Your task to perform on an android device: open wifi settings Image 0: 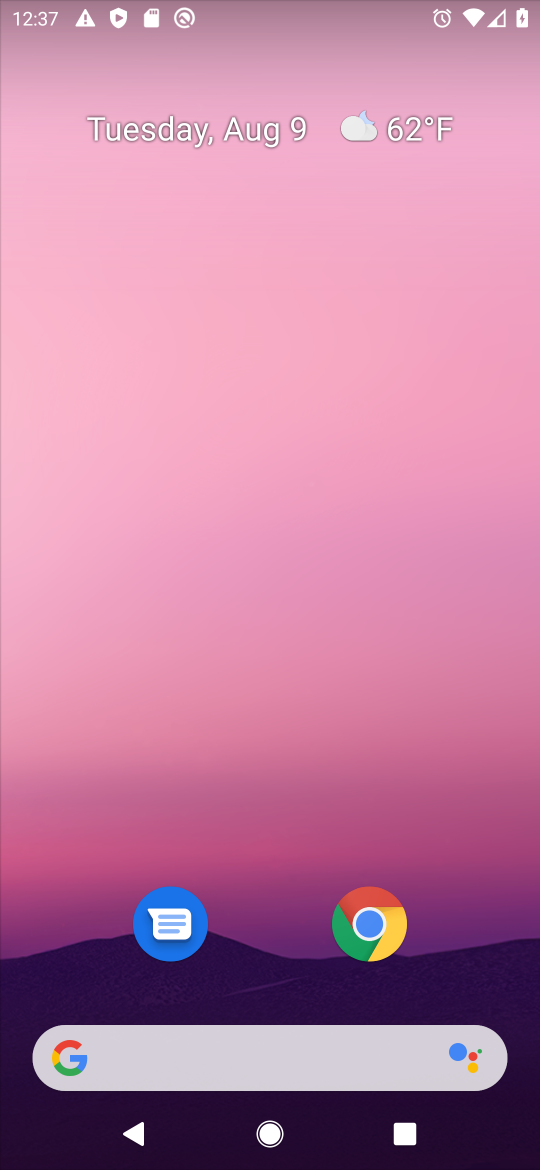
Step 0: drag from (297, 1023) to (270, 19)
Your task to perform on an android device: open wifi settings Image 1: 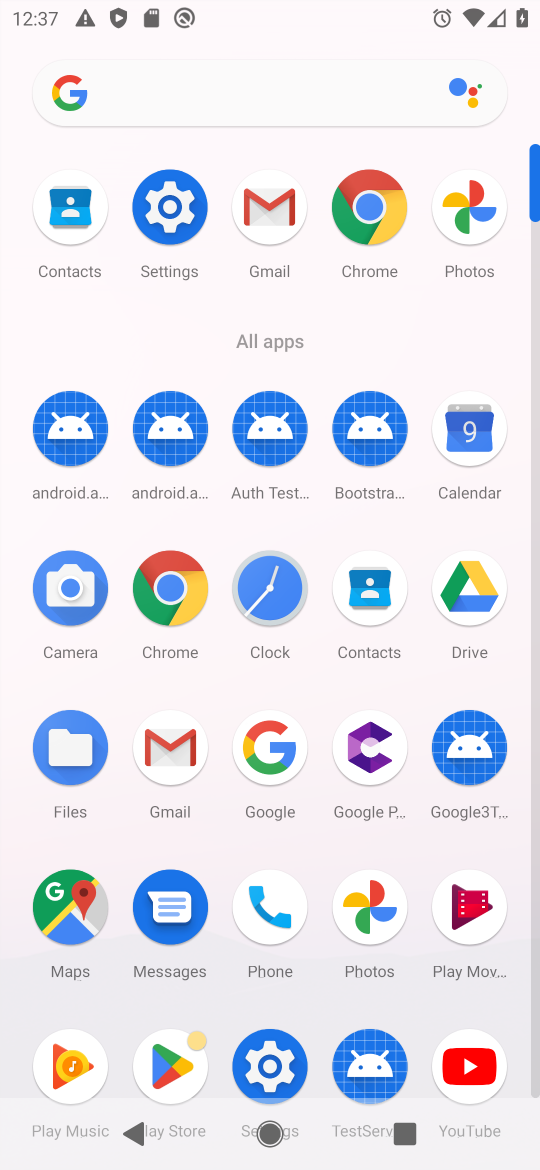
Step 1: click (301, 1062)
Your task to perform on an android device: open wifi settings Image 2: 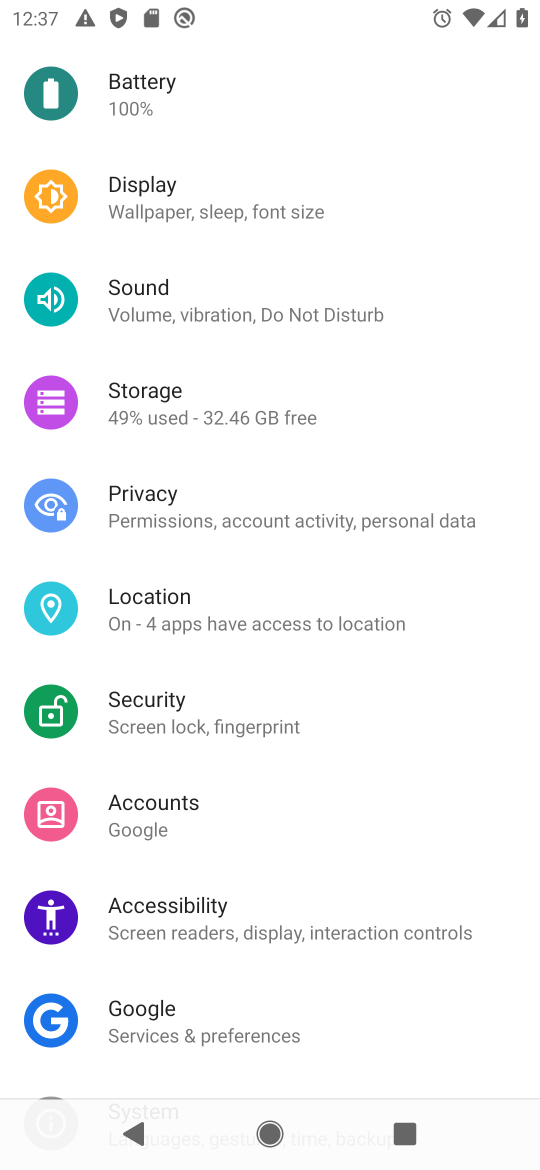
Step 2: drag from (149, 73) to (177, 819)
Your task to perform on an android device: open wifi settings Image 3: 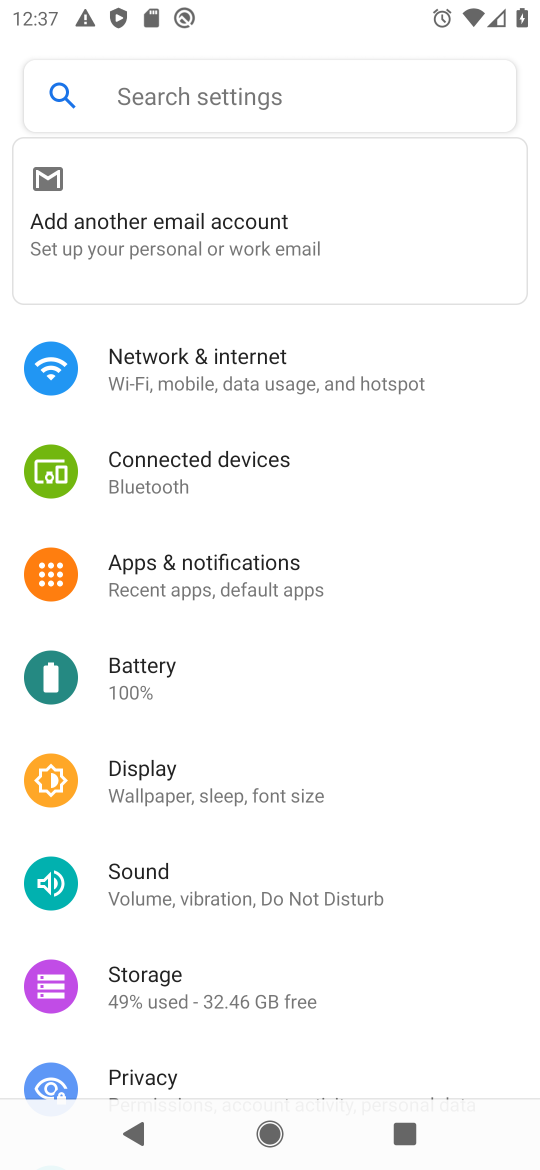
Step 3: click (177, 301)
Your task to perform on an android device: open wifi settings Image 4: 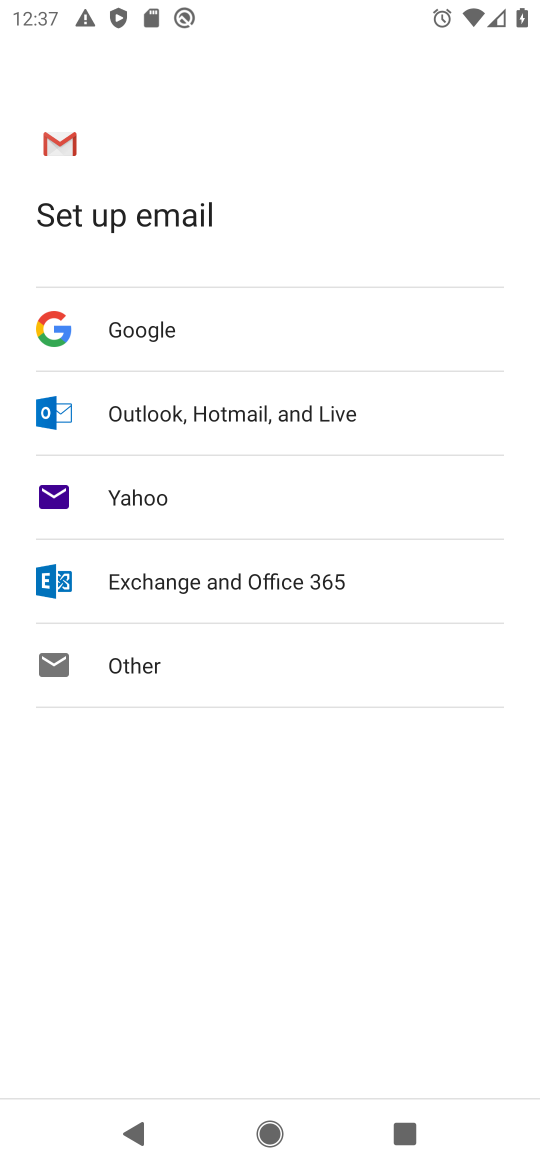
Step 4: click (119, 1153)
Your task to perform on an android device: open wifi settings Image 5: 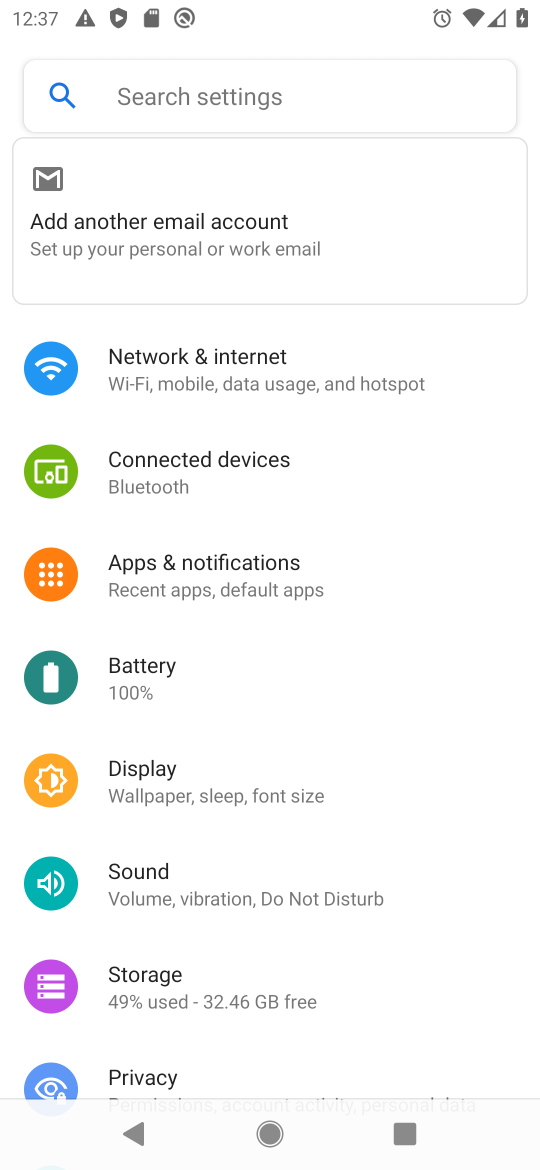
Step 5: click (183, 368)
Your task to perform on an android device: open wifi settings Image 6: 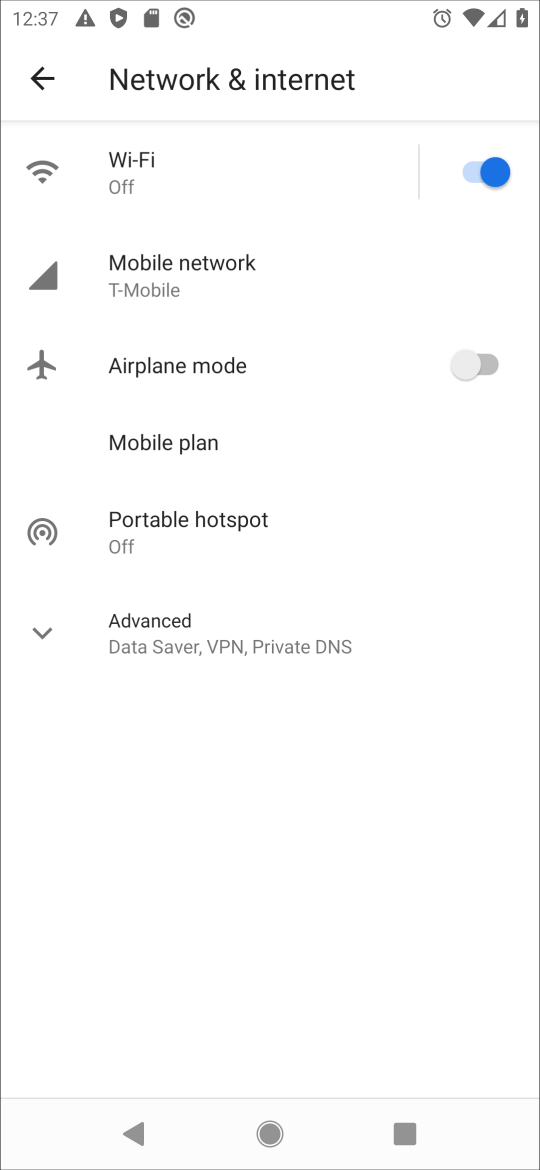
Step 6: task complete